Your task to perform on an android device: Open calendar and show me the third week of next month Image 0: 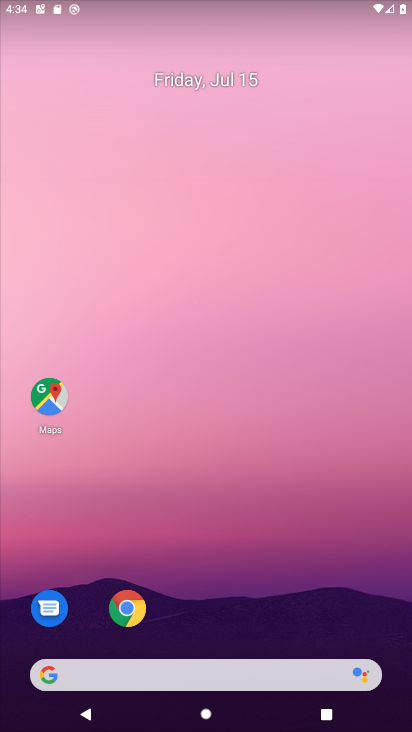
Step 0: drag from (240, 660) to (174, 210)
Your task to perform on an android device: Open calendar and show me the third week of next month Image 1: 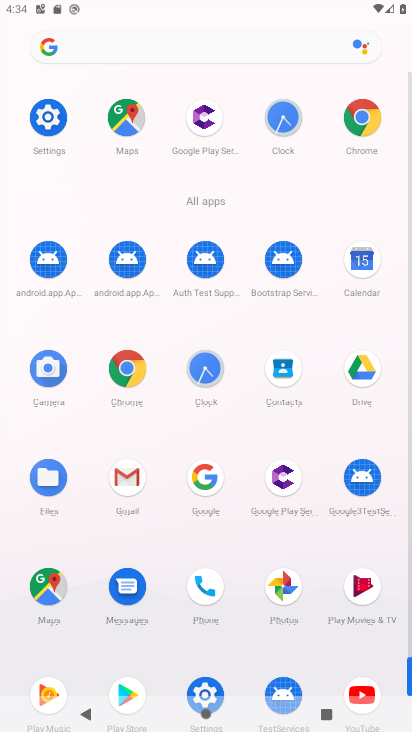
Step 1: click (367, 256)
Your task to perform on an android device: Open calendar and show me the third week of next month Image 2: 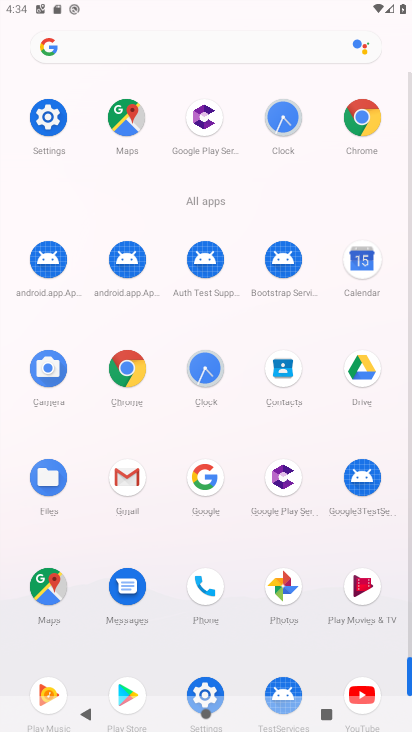
Step 2: click (367, 256)
Your task to perform on an android device: Open calendar and show me the third week of next month Image 3: 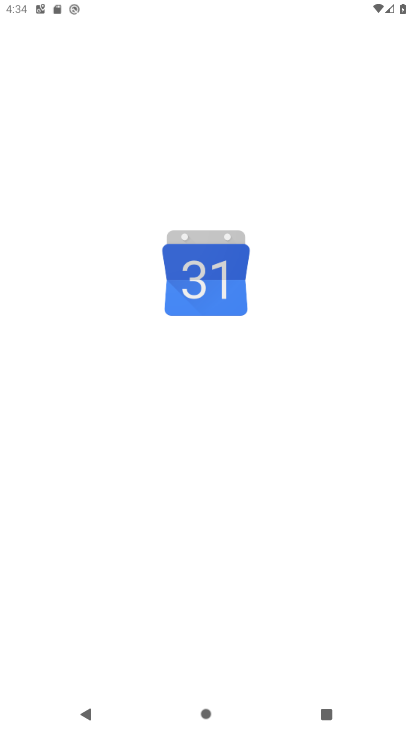
Step 3: click (362, 265)
Your task to perform on an android device: Open calendar and show me the third week of next month Image 4: 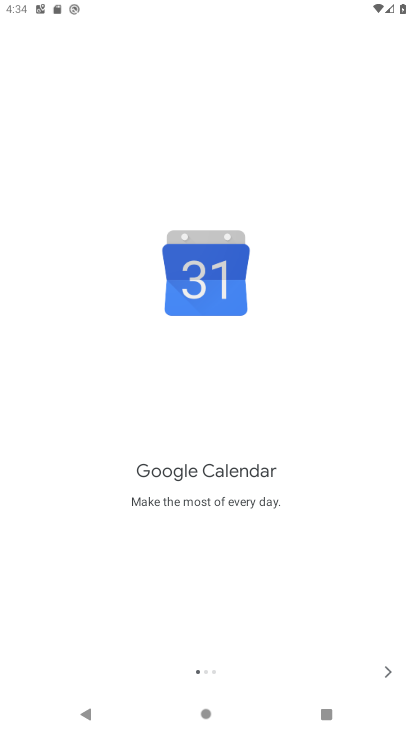
Step 4: click (388, 665)
Your task to perform on an android device: Open calendar and show me the third week of next month Image 5: 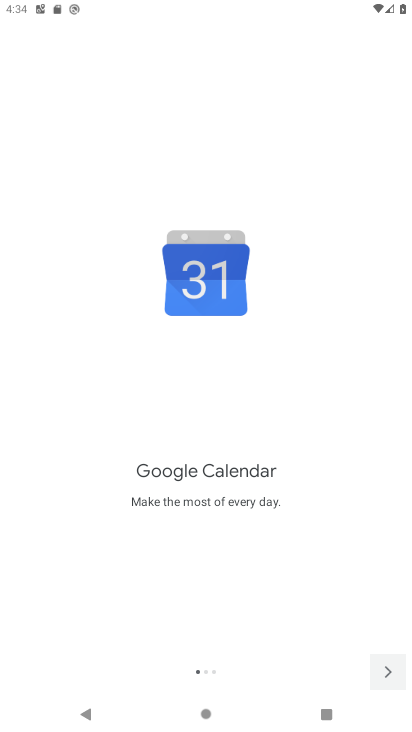
Step 5: click (385, 666)
Your task to perform on an android device: Open calendar and show me the third week of next month Image 6: 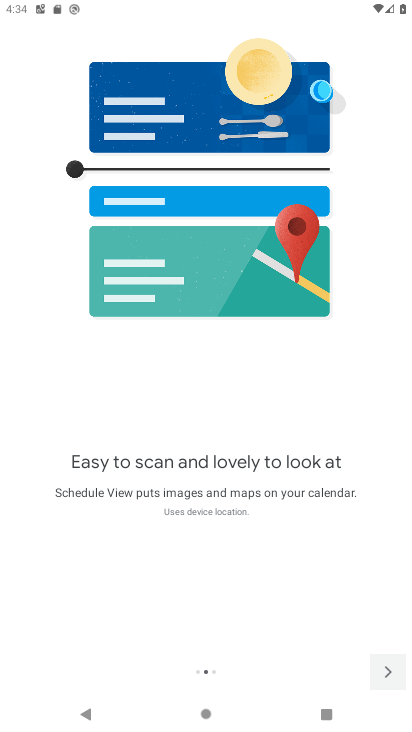
Step 6: click (384, 665)
Your task to perform on an android device: Open calendar and show me the third week of next month Image 7: 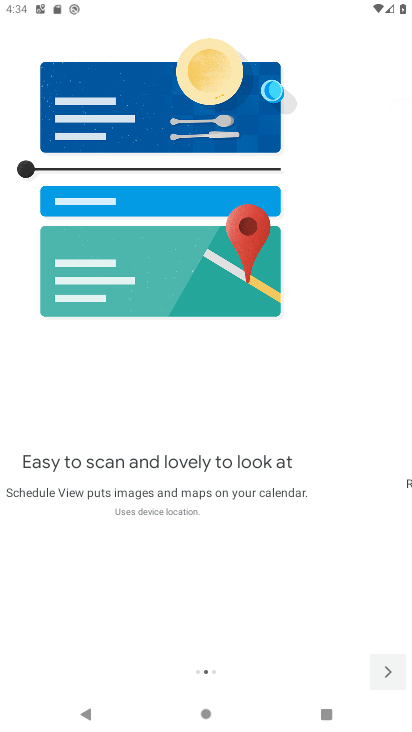
Step 7: click (384, 666)
Your task to perform on an android device: Open calendar and show me the third week of next month Image 8: 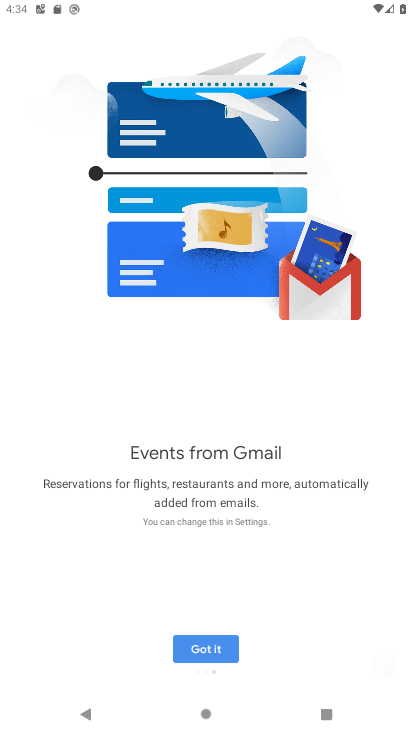
Step 8: click (380, 678)
Your task to perform on an android device: Open calendar and show me the third week of next month Image 9: 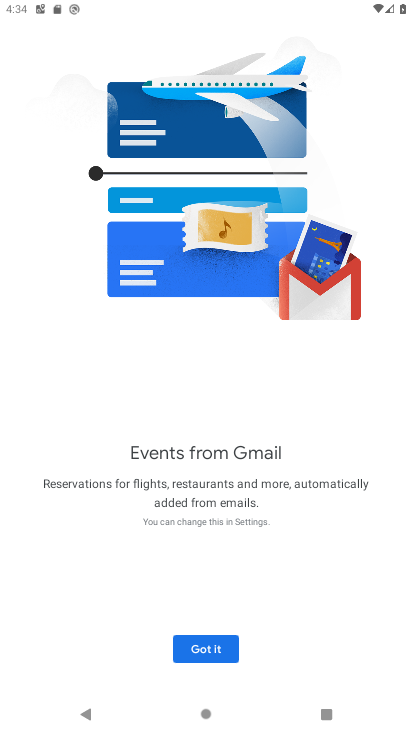
Step 9: click (379, 680)
Your task to perform on an android device: Open calendar and show me the third week of next month Image 10: 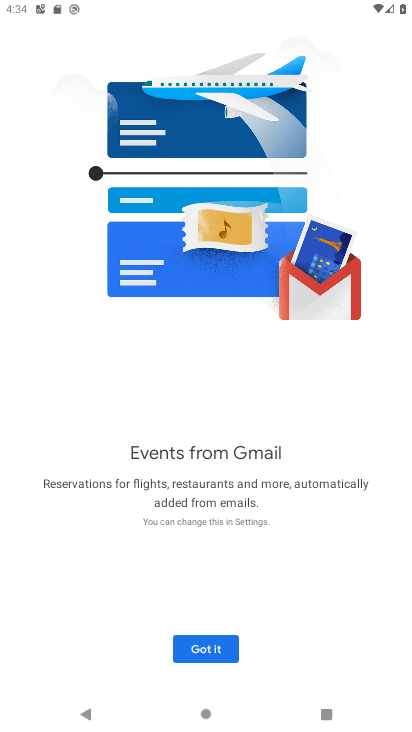
Step 10: click (217, 646)
Your task to perform on an android device: Open calendar and show me the third week of next month Image 11: 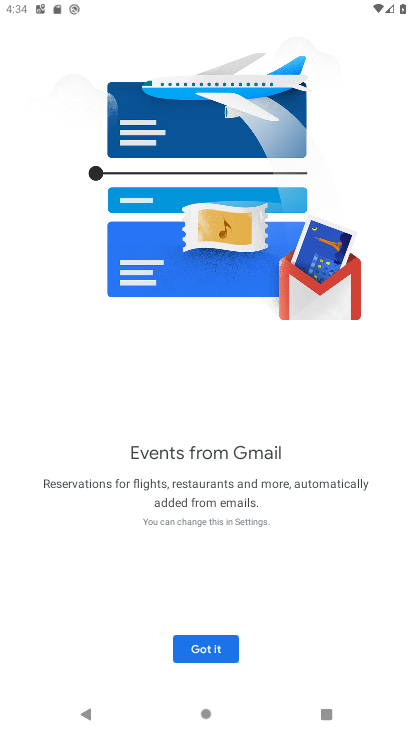
Step 11: click (215, 646)
Your task to perform on an android device: Open calendar and show me the third week of next month Image 12: 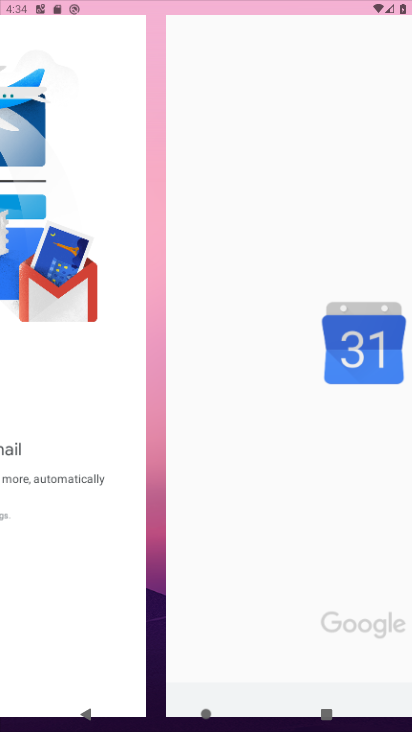
Step 12: click (222, 643)
Your task to perform on an android device: Open calendar and show me the third week of next month Image 13: 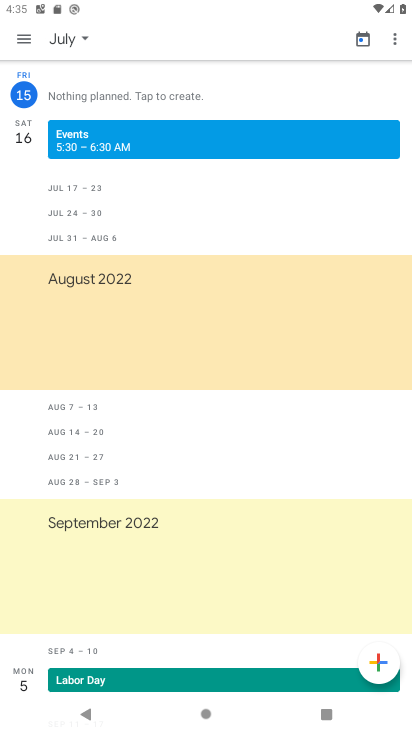
Step 13: click (80, 34)
Your task to perform on an android device: Open calendar and show me the third week of next month Image 14: 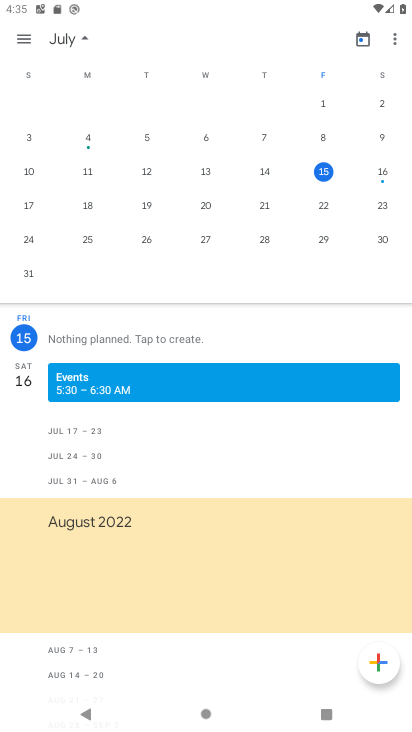
Step 14: drag from (376, 148) to (9, 224)
Your task to perform on an android device: Open calendar and show me the third week of next month Image 15: 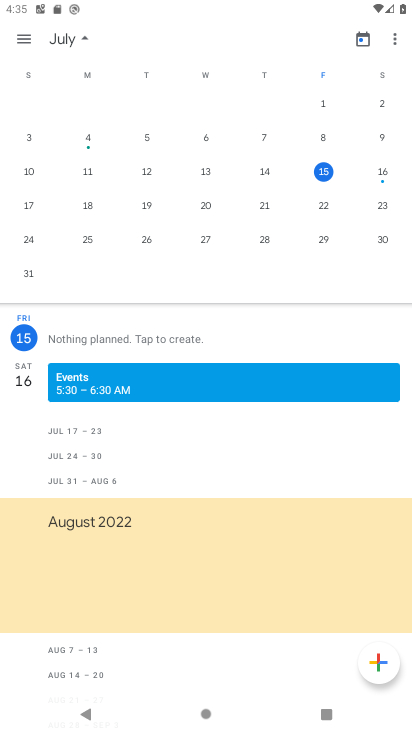
Step 15: drag from (370, 180) to (24, 242)
Your task to perform on an android device: Open calendar and show me the third week of next month Image 16: 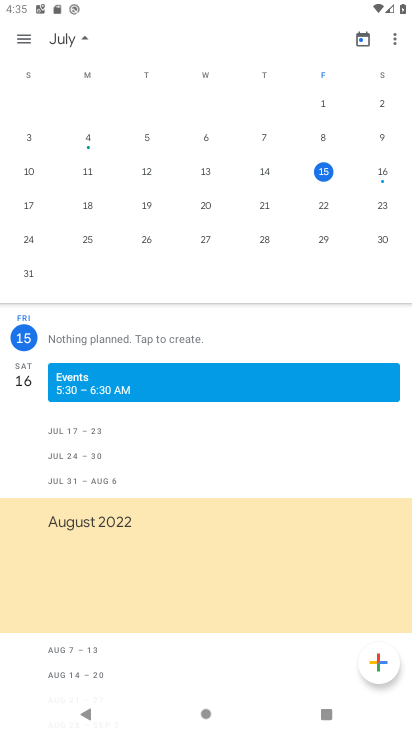
Step 16: drag from (335, 164) to (39, 161)
Your task to perform on an android device: Open calendar and show me the third week of next month Image 17: 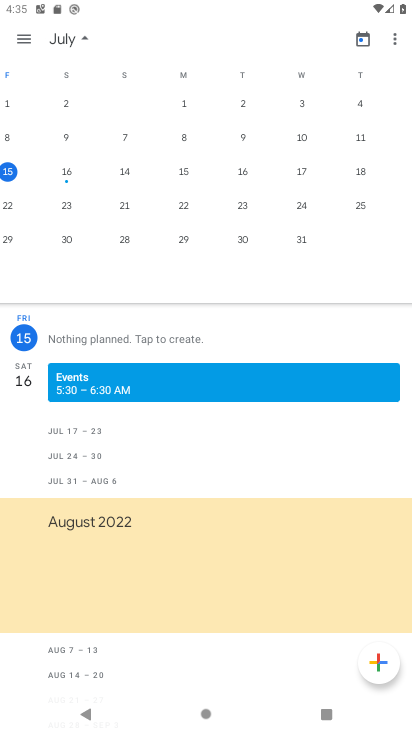
Step 17: drag from (365, 156) to (1, 223)
Your task to perform on an android device: Open calendar and show me the third week of next month Image 18: 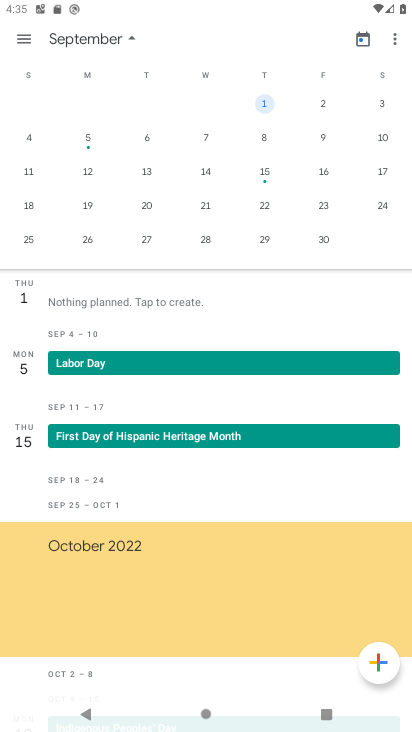
Step 18: drag from (106, 157) to (396, 164)
Your task to perform on an android device: Open calendar and show me the third week of next month Image 19: 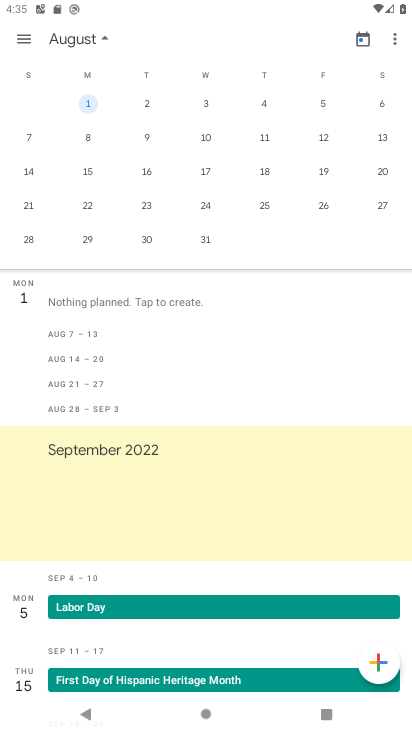
Step 19: click (145, 169)
Your task to perform on an android device: Open calendar and show me the third week of next month Image 20: 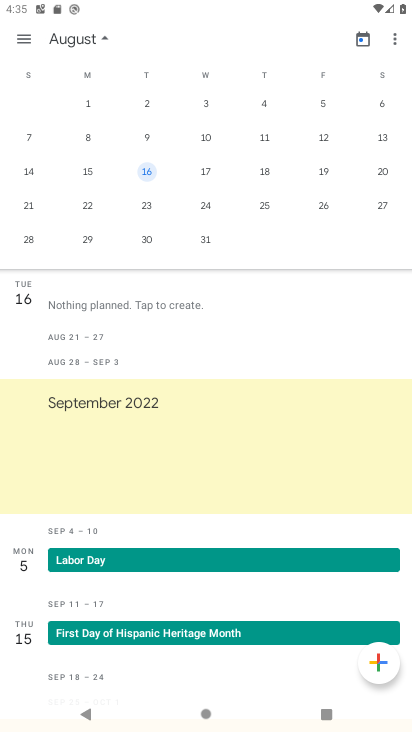
Step 20: click (151, 169)
Your task to perform on an android device: Open calendar and show me the third week of next month Image 21: 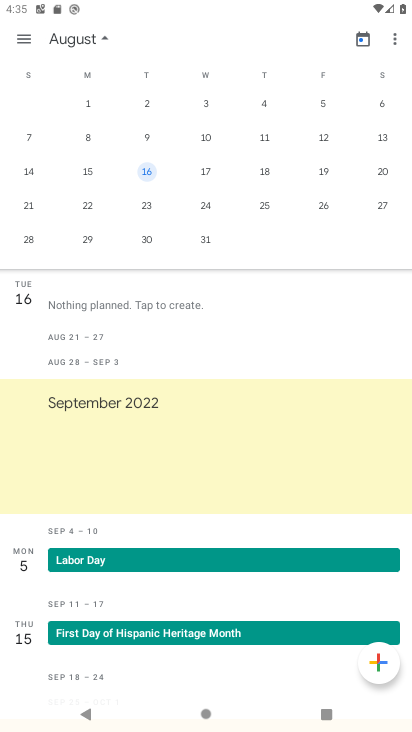
Step 21: task complete